Your task to perform on an android device: open app "Flipkart Online Shopping App" Image 0: 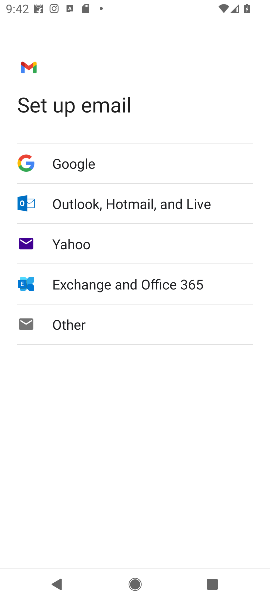
Step 0: press home button
Your task to perform on an android device: open app "Flipkart Online Shopping App" Image 1: 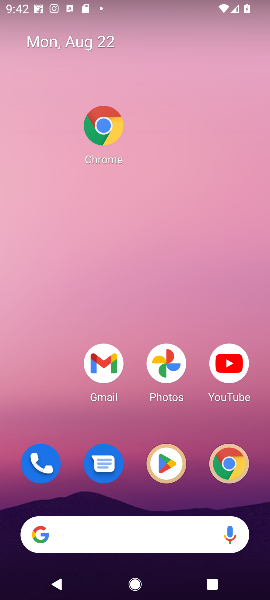
Step 1: click (165, 469)
Your task to perform on an android device: open app "Flipkart Online Shopping App" Image 2: 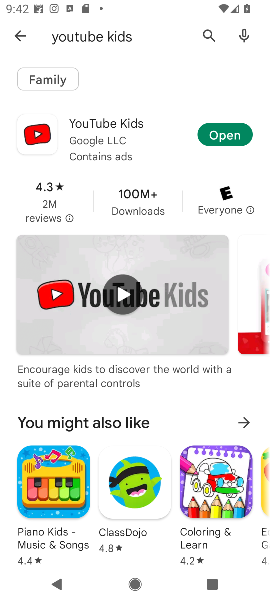
Step 2: click (21, 39)
Your task to perform on an android device: open app "Flipkart Online Shopping App" Image 3: 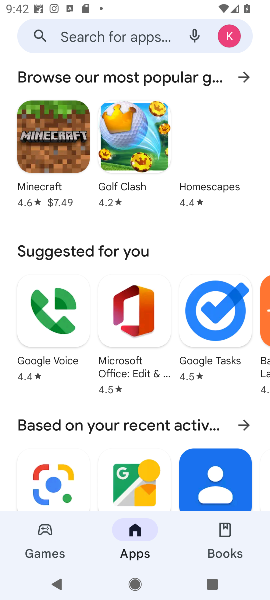
Step 3: click (96, 39)
Your task to perform on an android device: open app "Flipkart Online Shopping App" Image 4: 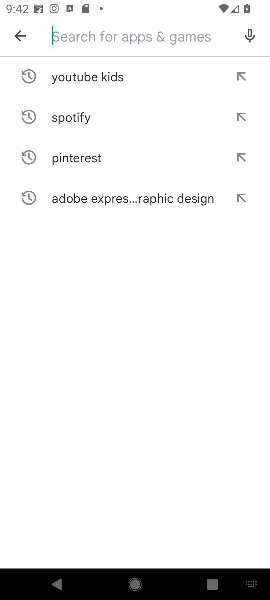
Step 4: type "Flipkart Online Shopping App"
Your task to perform on an android device: open app "Flipkart Online Shopping App" Image 5: 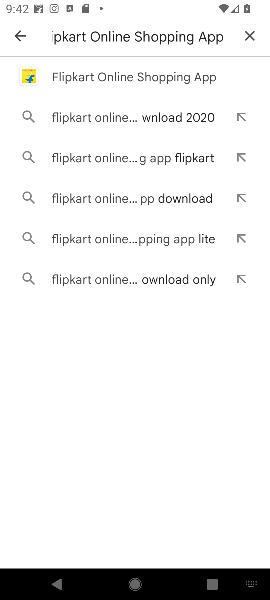
Step 5: click (82, 70)
Your task to perform on an android device: open app "Flipkart Online Shopping App" Image 6: 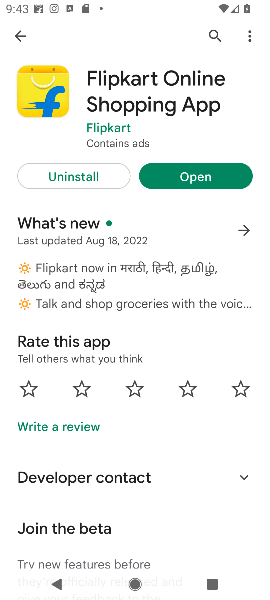
Step 6: click (207, 178)
Your task to perform on an android device: open app "Flipkart Online Shopping App" Image 7: 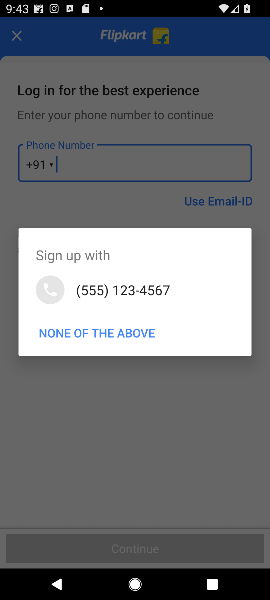
Step 7: click (120, 295)
Your task to perform on an android device: open app "Flipkart Online Shopping App" Image 8: 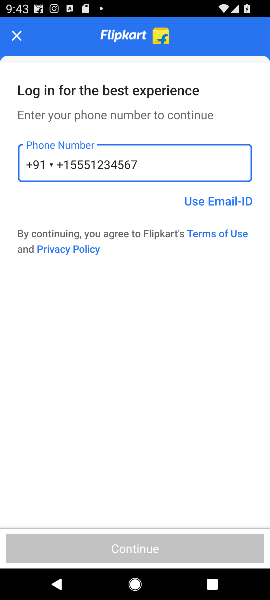
Step 8: task complete